Your task to perform on an android device: delete a single message in the gmail app Image 0: 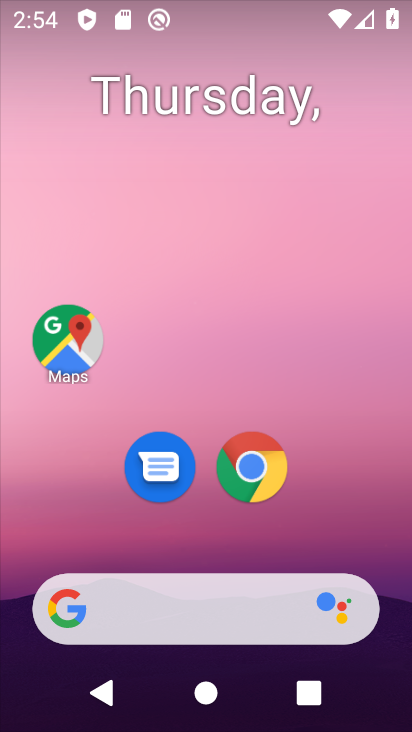
Step 0: drag from (224, 601) to (235, 184)
Your task to perform on an android device: delete a single message in the gmail app Image 1: 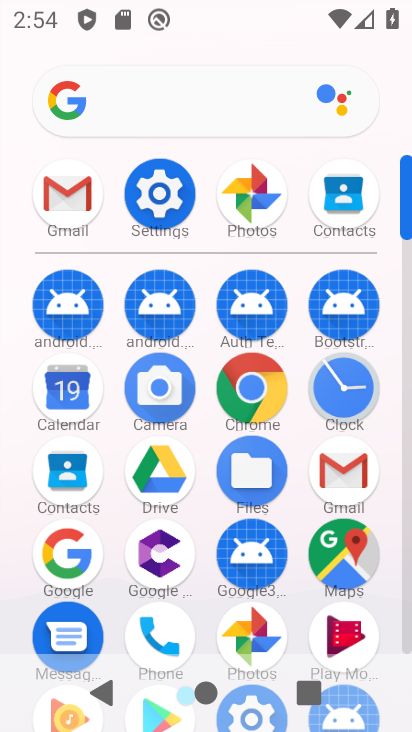
Step 1: click (53, 202)
Your task to perform on an android device: delete a single message in the gmail app Image 2: 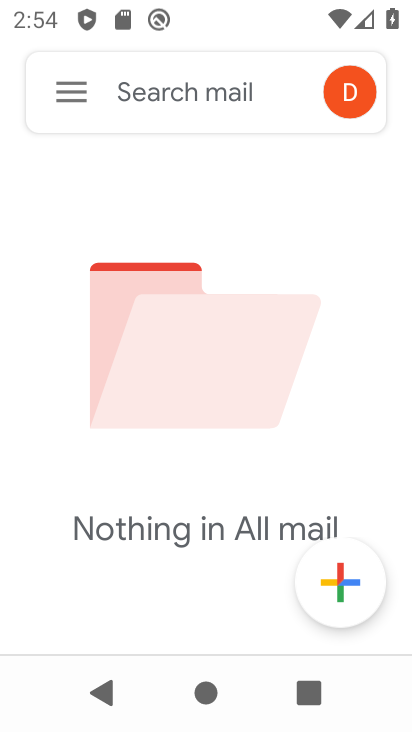
Step 2: click (63, 79)
Your task to perform on an android device: delete a single message in the gmail app Image 3: 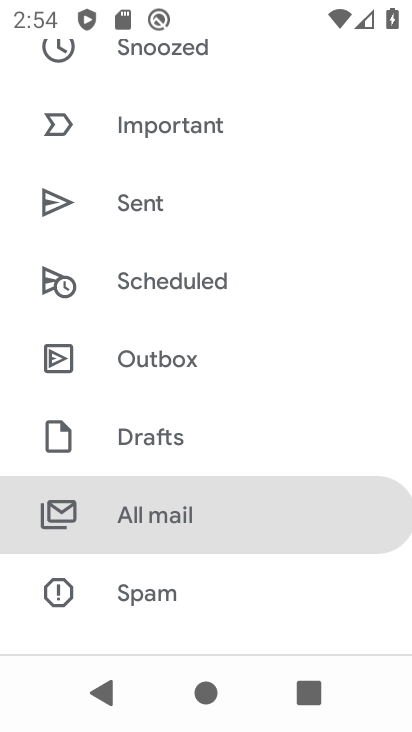
Step 3: click (170, 495)
Your task to perform on an android device: delete a single message in the gmail app Image 4: 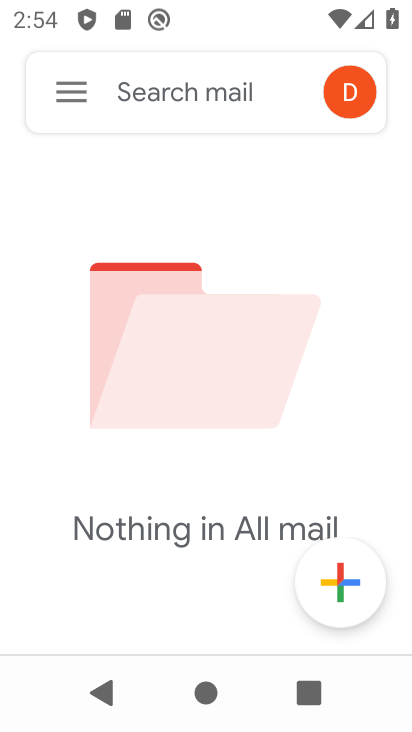
Step 4: task complete